Your task to perform on an android device: Open display settings Image 0: 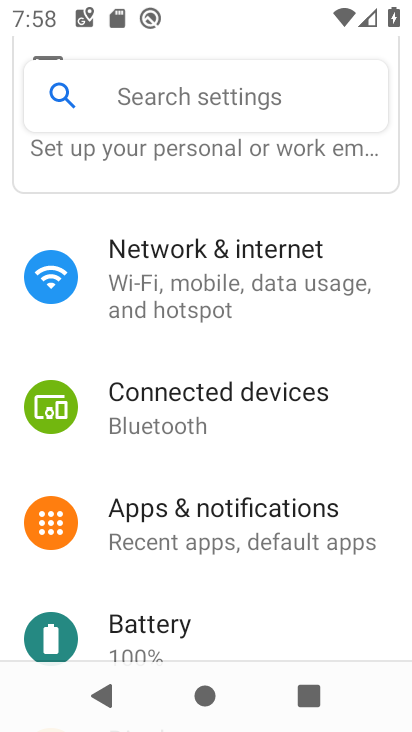
Step 0: drag from (176, 555) to (171, 208)
Your task to perform on an android device: Open display settings Image 1: 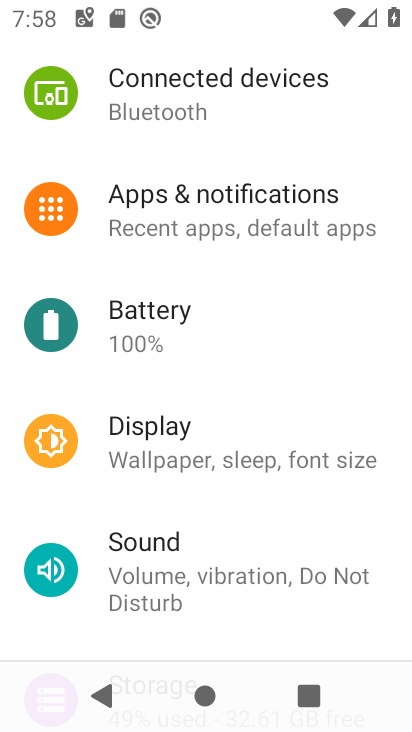
Step 1: click (165, 430)
Your task to perform on an android device: Open display settings Image 2: 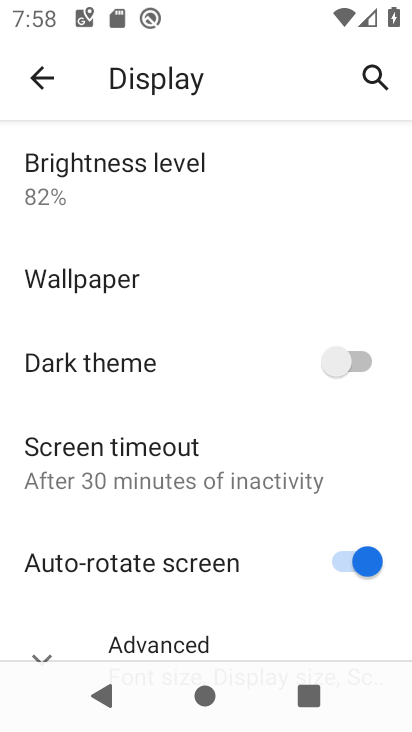
Step 2: task complete